Your task to perform on an android device: delete location history Image 0: 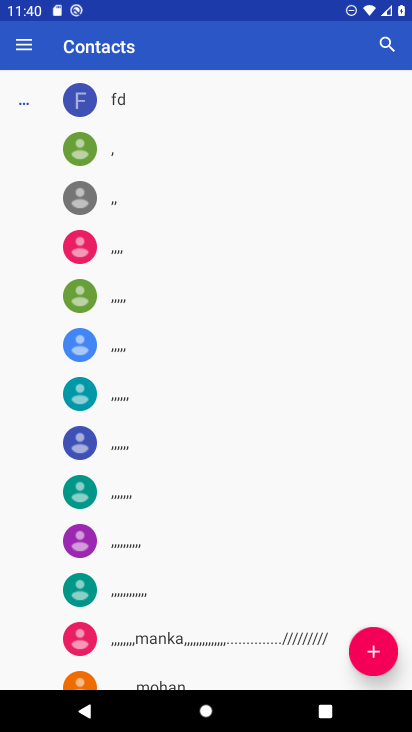
Step 0: press home button
Your task to perform on an android device: delete location history Image 1: 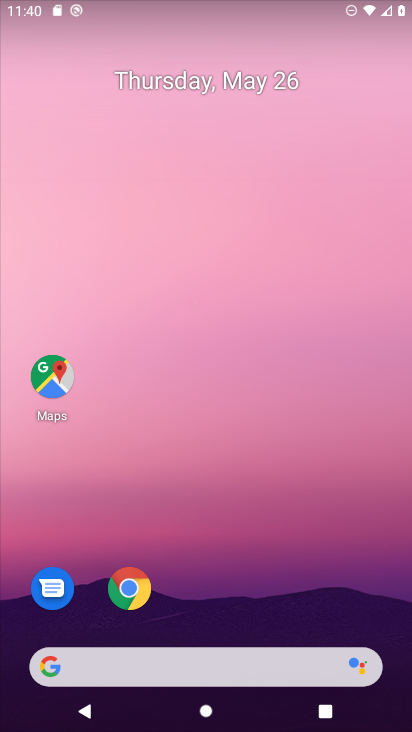
Step 1: click (52, 374)
Your task to perform on an android device: delete location history Image 2: 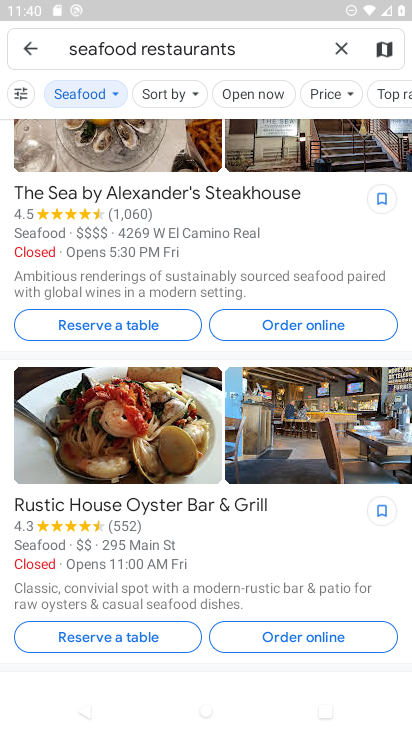
Step 2: click (340, 44)
Your task to perform on an android device: delete location history Image 3: 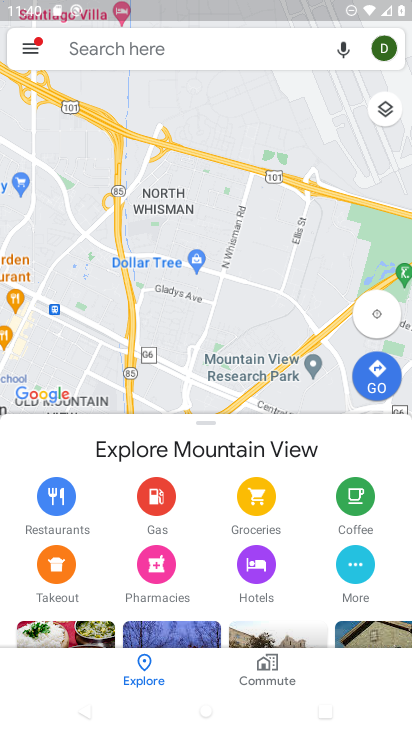
Step 3: click (30, 48)
Your task to perform on an android device: delete location history Image 4: 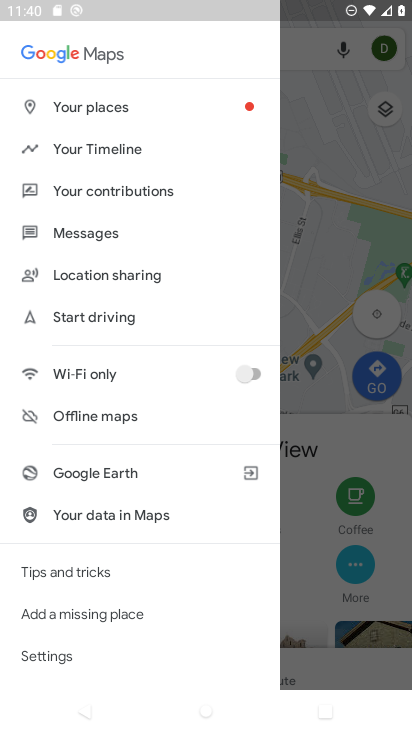
Step 4: click (73, 646)
Your task to perform on an android device: delete location history Image 5: 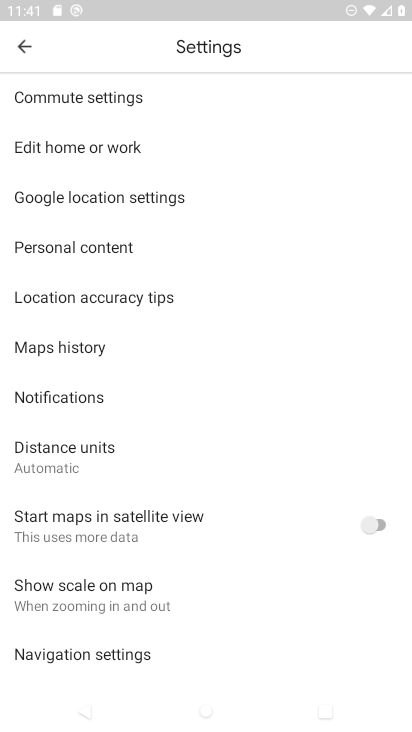
Step 5: click (85, 245)
Your task to perform on an android device: delete location history Image 6: 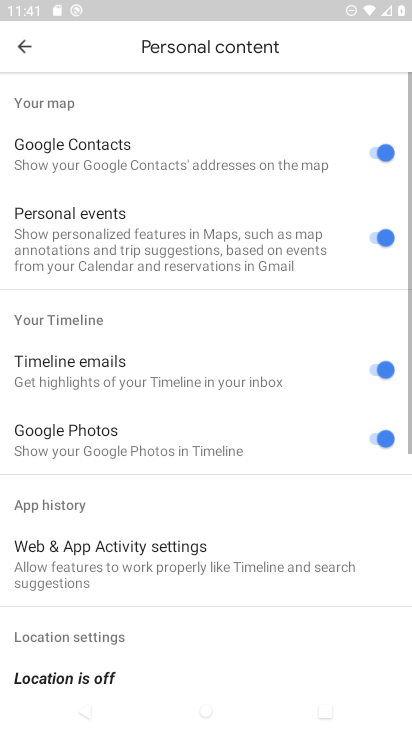
Step 6: drag from (251, 580) to (273, 138)
Your task to perform on an android device: delete location history Image 7: 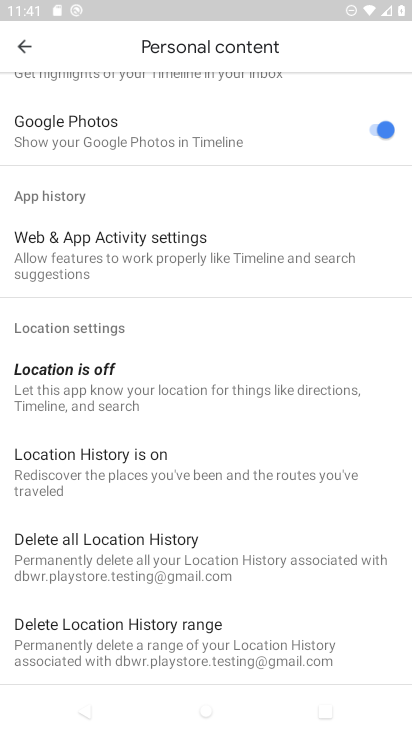
Step 7: click (69, 557)
Your task to perform on an android device: delete location history Image 8: 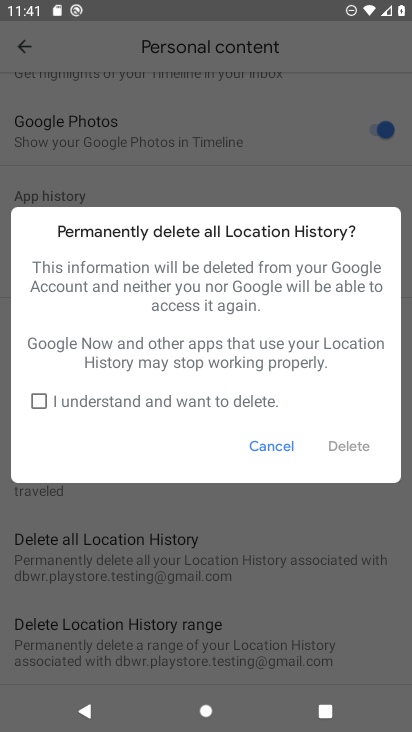
Step 8: click (41, 395)
Your task to perform on an android device: delete location history Image 9: 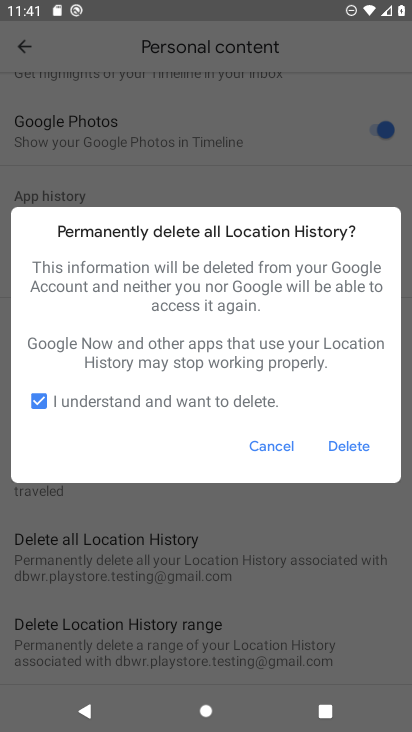
Step 9: click (348, 439)
Your task to perform on an android device: delete location history Image 10: 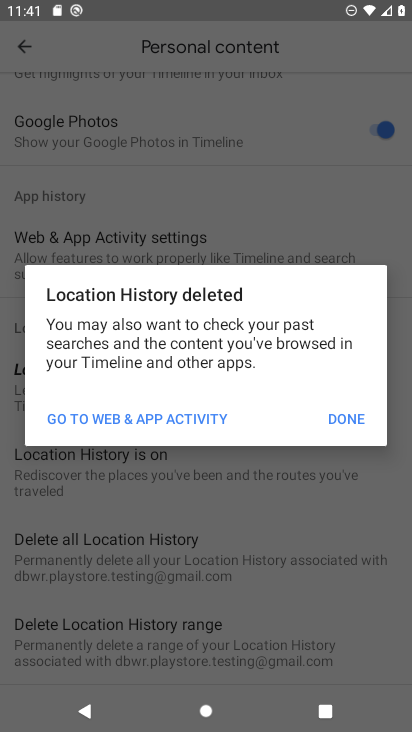
Step 10: click (349, 414)
Your task to perform on an android device: delete location history Image 11: 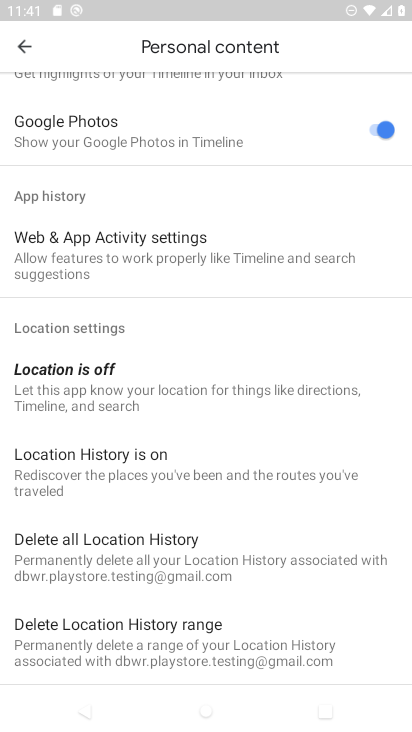
Step 11: task complete